Your task to perform on an android device: Open calendar and show me the first week of next month Image 0: 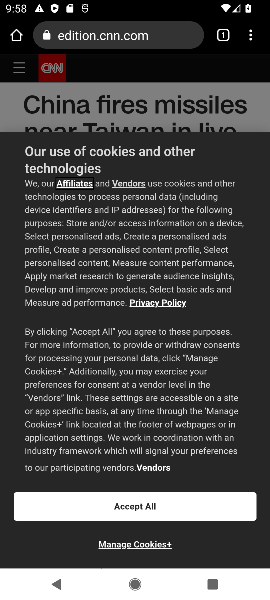
Step 0: press home button
Your task to perform on an android device: Open calendar and show me the first week of next month Image 1: 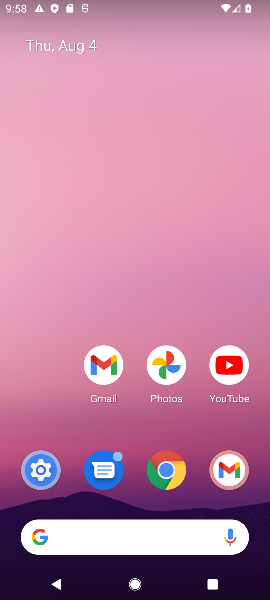
Step 1: drag from (135, 435) to (143, 10)
Your task to perform on an android device: Open calendar and show me the first week of next month Image 2: 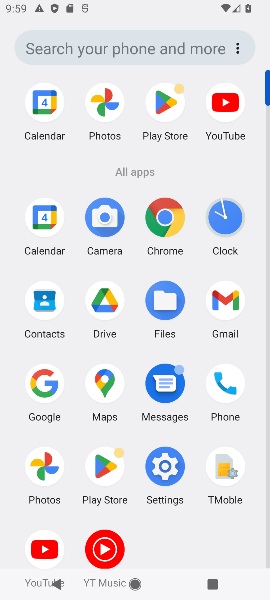
Step 2: click (45, 227)
Your task to perform on an android device: Open calendar and show me the first week of next month Image 3: 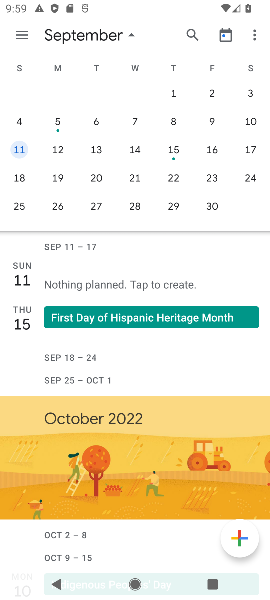
Step 3: click (178, 97)
Your task to perform on an android device: Open calendar and show me the first week of next month Image 4: 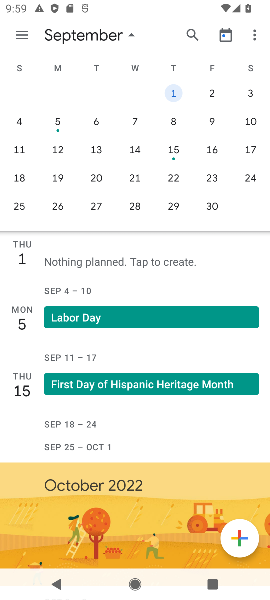
Step 4: task complete